Your task to perform on an android device: Open Google Chrome Image 0: 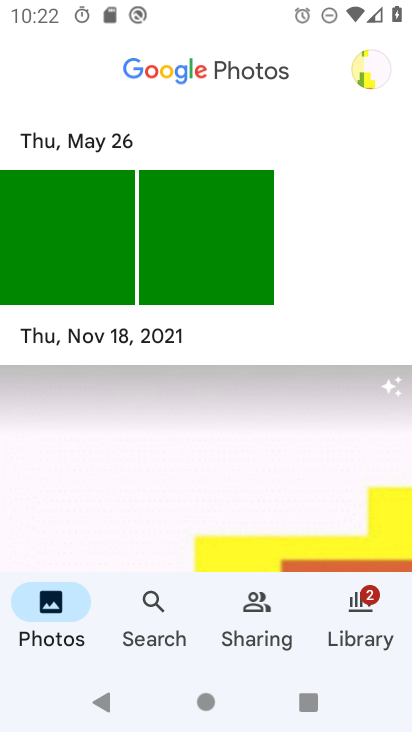
Step 0: press home button
Your task to perform on an android device: Open Google Chrome Image 1: 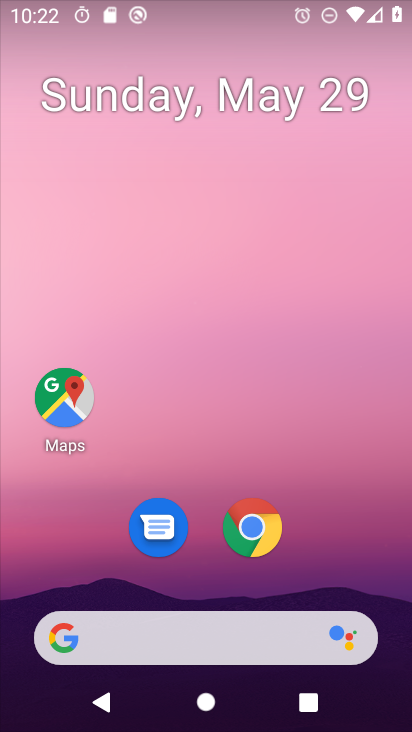
Step 1: drag from (387, 640) to (289, 116)
Your task to perform on an android device: Open Google Chrome Image 2: 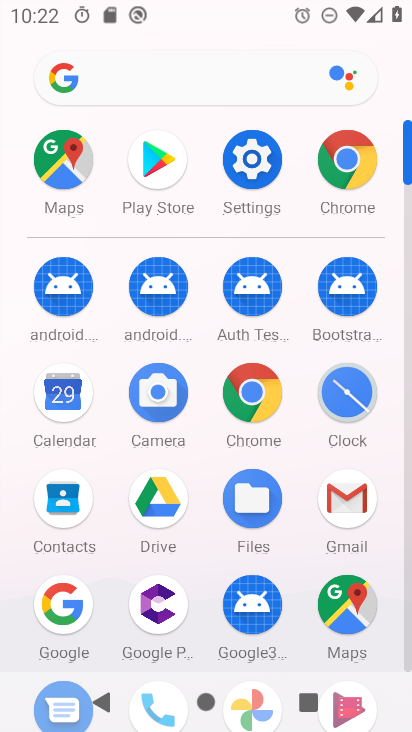
Step 2: click (344, 158)
Your task to perform on an android device: Open Google Chrome Image 3: 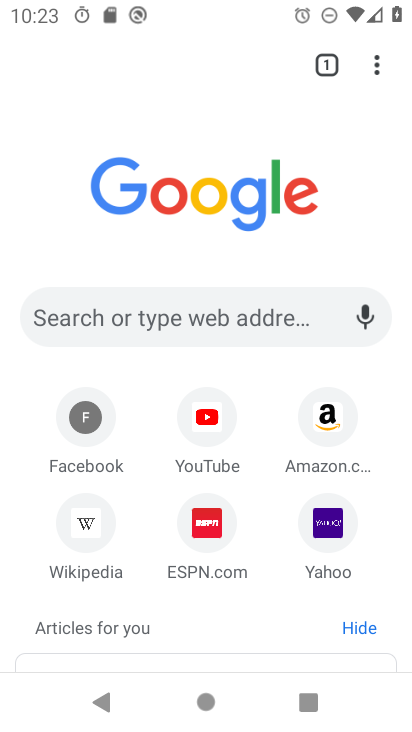
Step 3: task complete